Your task to perform on an android device: see sites visited before in the chrome app Image 0: 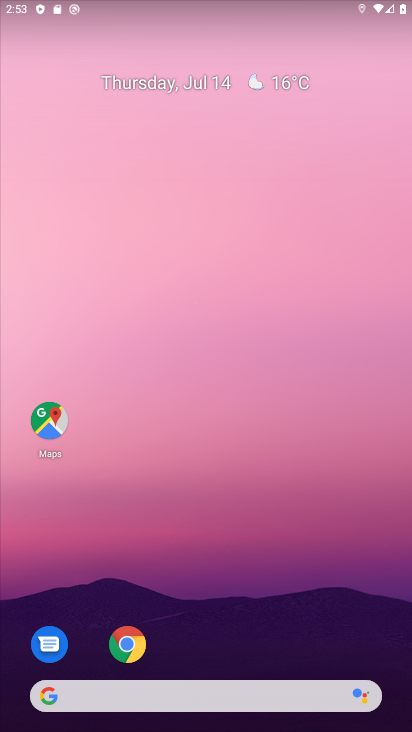
Step 0: click (136, 637)
Your task to perform on an android device: see sites visited before in the chrome app Image 1: 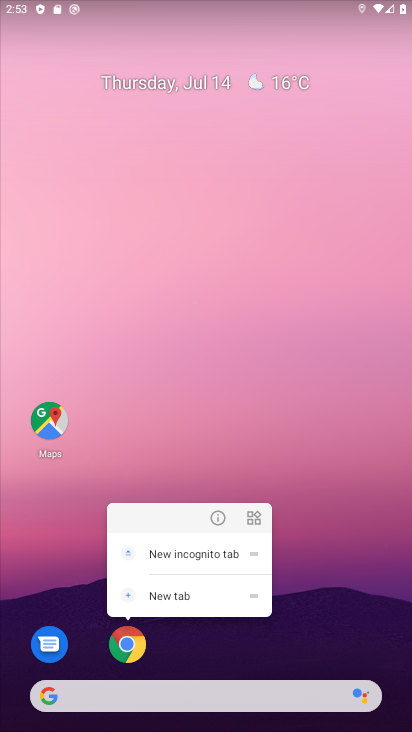
Step 1: click (132, 648)
Your task to perform on an android device: see sites visited before in the chrome app Image 2: 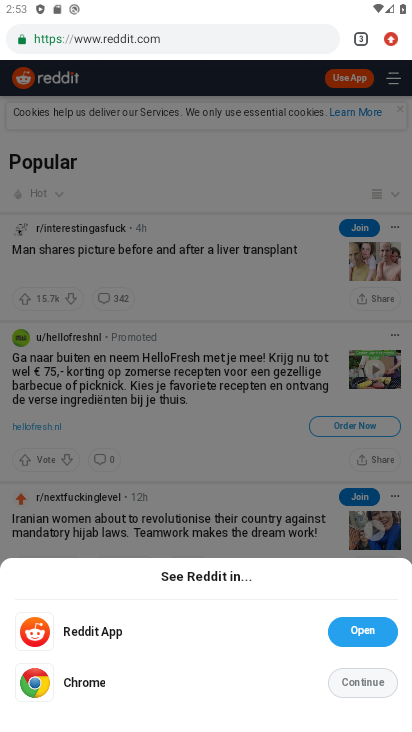
Step 2: click (384, 40)
Your task to perform on an android device: see sites visited before in the chrome app Image 3: 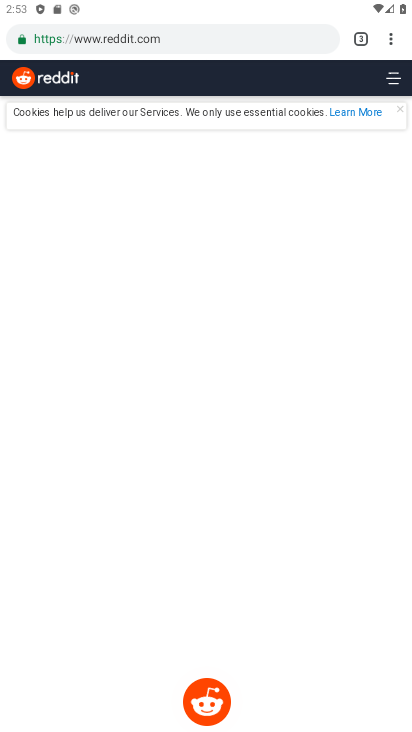
Step 3: click (384, 40)
Your task to perform on an android device: see sites visited before in the chrome app Image 4: 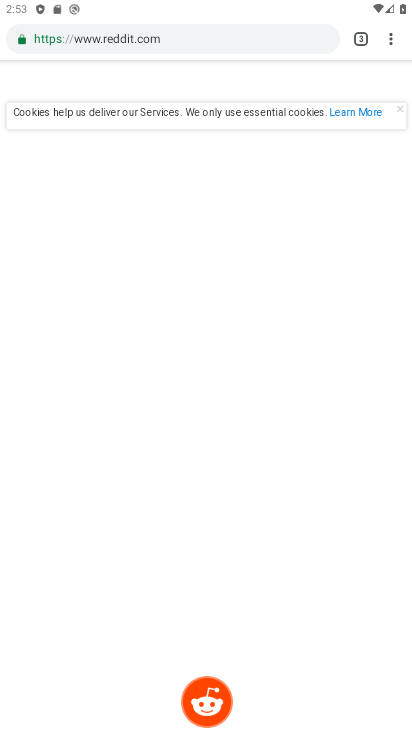
Step 4: click (390, 43)
Your task to perform on an android device: see sites visited before in the chrome app Image 5: 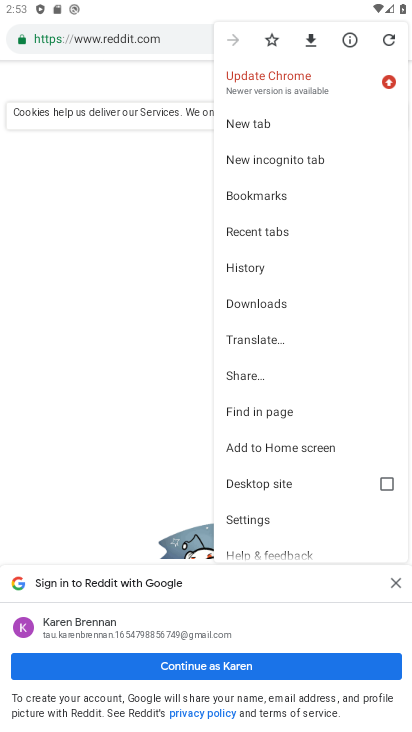
Step 5: click (297, 237)
Your task to perform on an android device: see sites visited before in the chrome app Image 6: 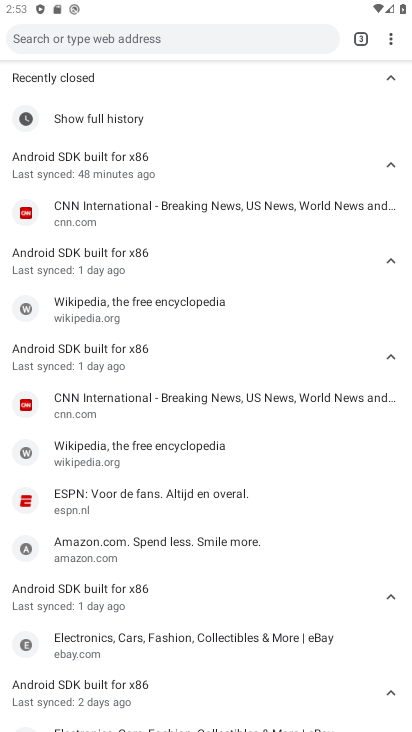
Step 6: task complete